Your task to perform on an android device: Open maps Image 0: 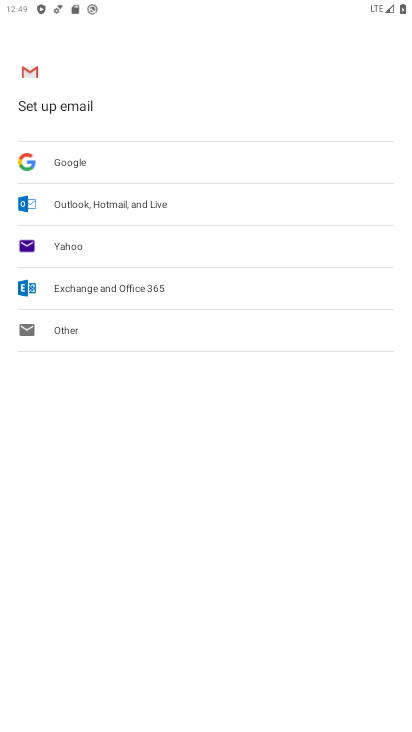
Step 0: press back button
Your task to perform on an android device: Open maps Image 1: 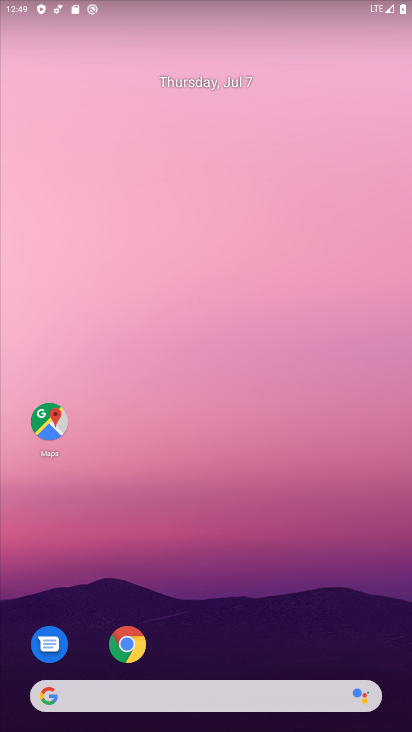
Step 1: click (49, 421)
Your task to perform on an android device: Open maps Image 2: 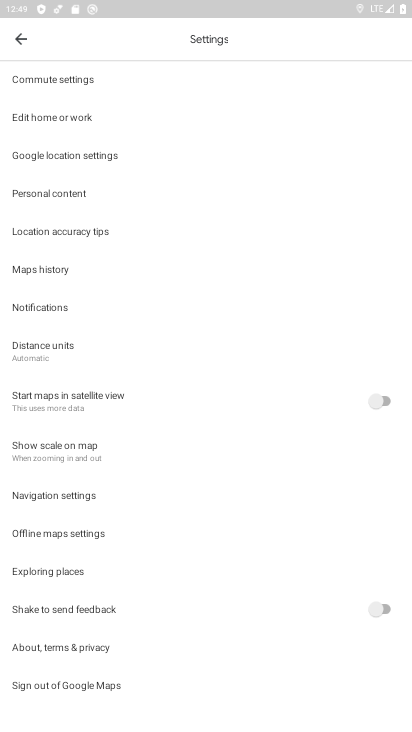
Step 2: click (23, 36)
Your task to perform on an android device: Open maps Image 3: 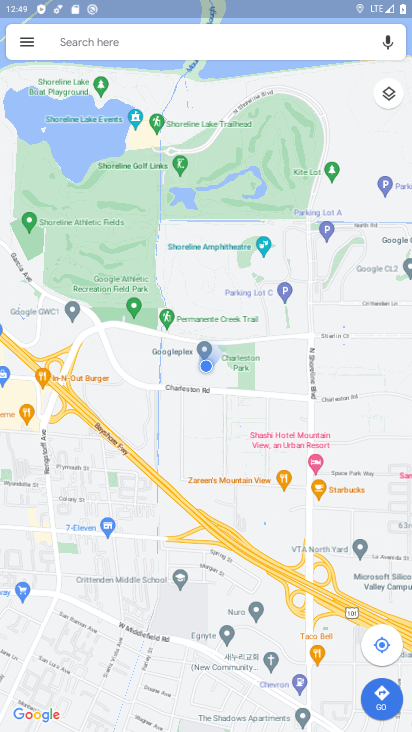
Step 3: task complete